Your task to perform on an android device: Play the latest video from the Washington Post Image 0: 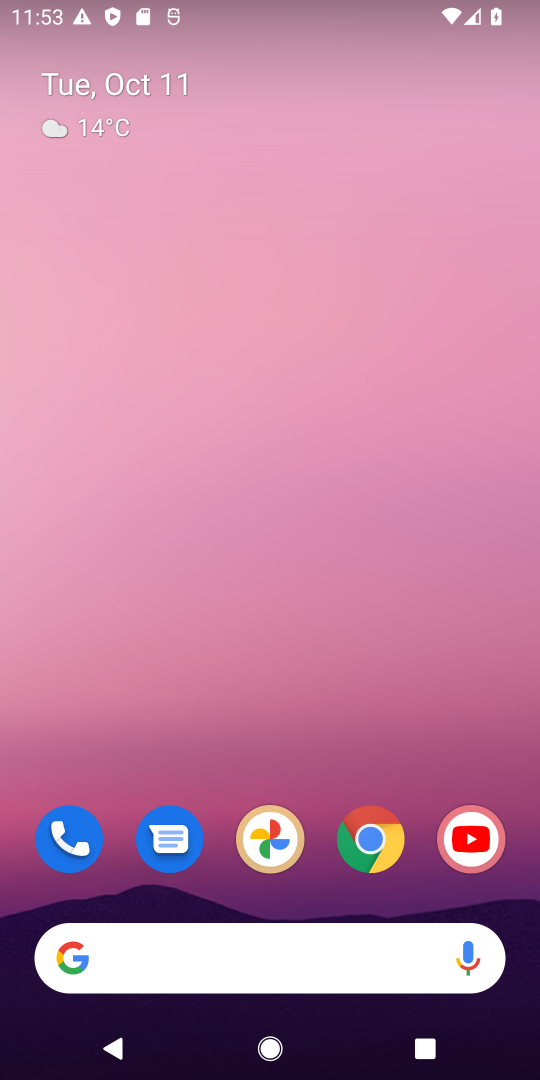
Step 0: drag from (338, 777) to (204, 0)
Your task to perform on an android device: Play the latest video from the Washington Post Image 1: 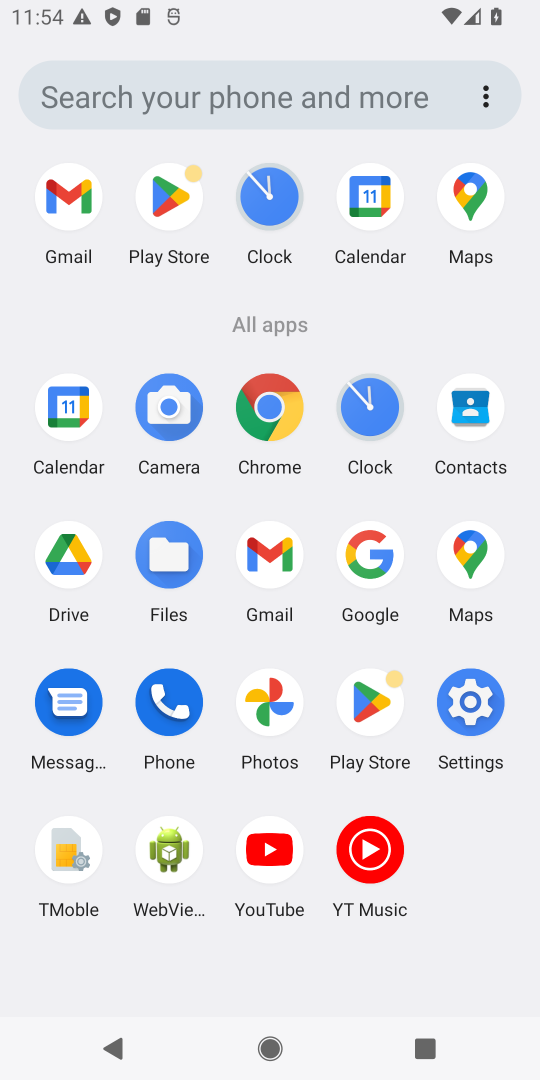
Step 1: click (280, 835)
Your task to perform on an android device: Play the latest video from the Washington Post Image 2: 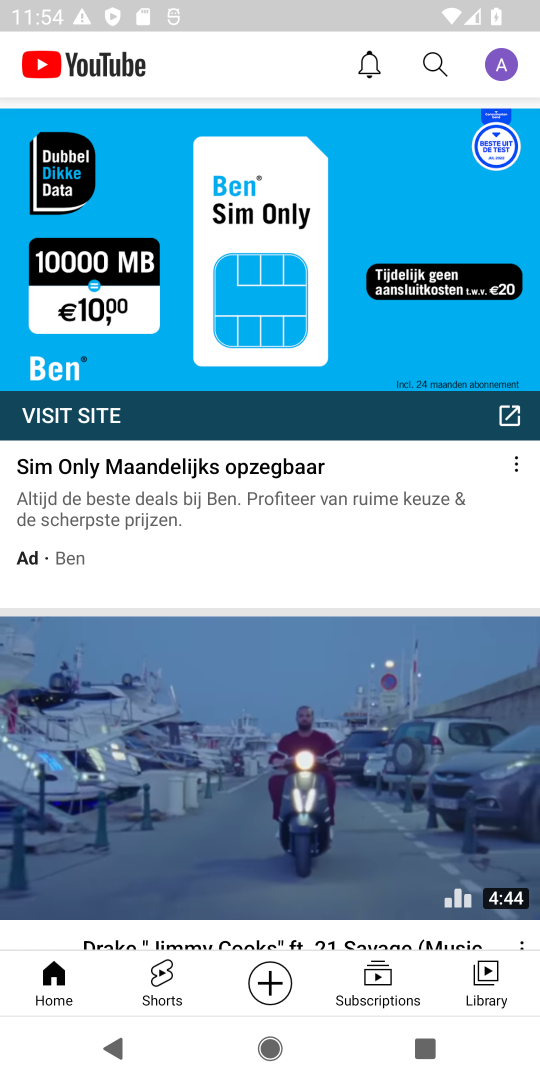
Step 2: click (426, 54)
Your task to perform on an android device: Play the latest video from the Washington Post Image 3: 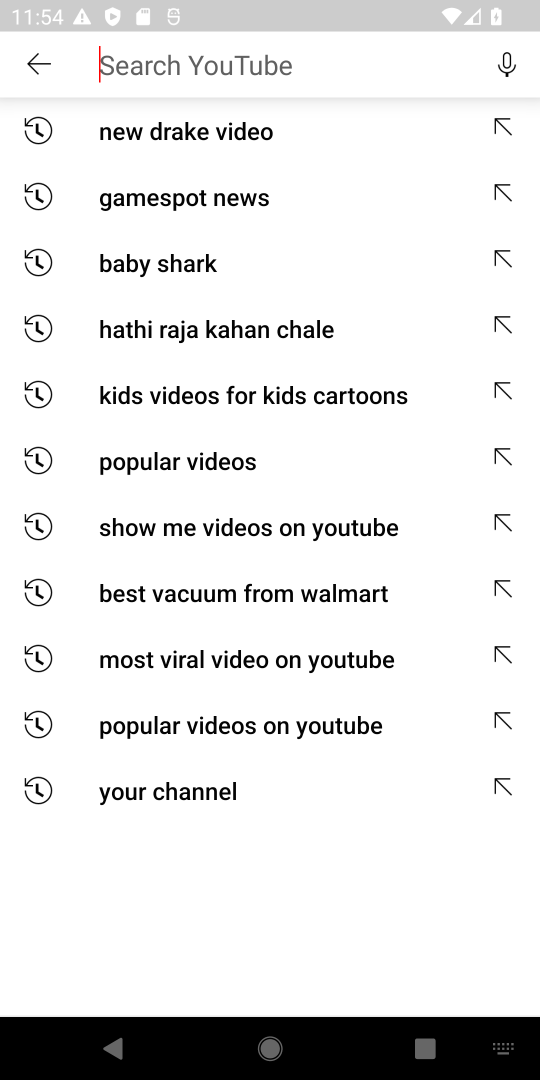
Step 3: type "Washington Post"
Your task to perform on an android device: Play the latest video from the Washington Post Image 4: 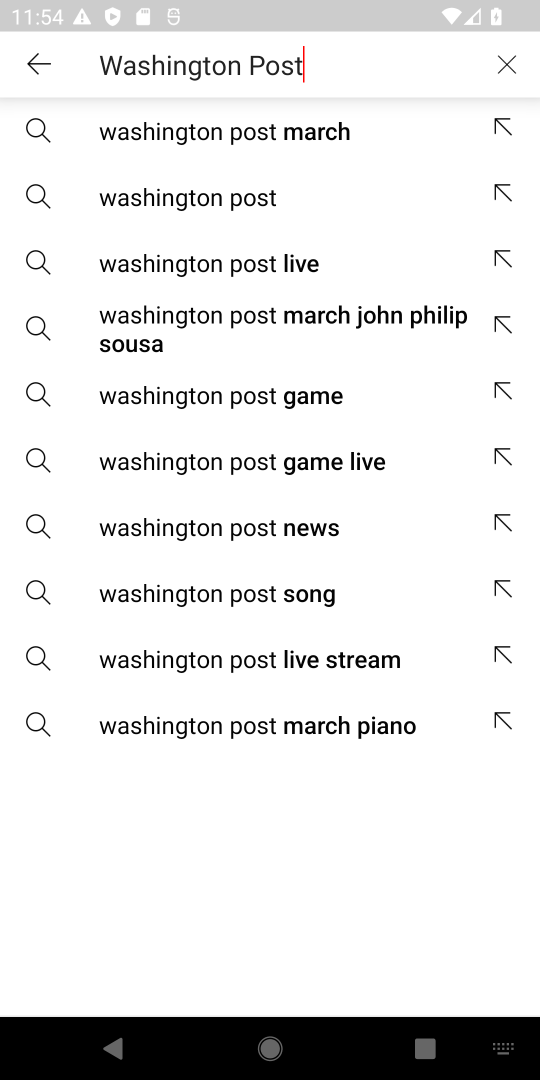
Step 4: click (257, 187)
Your task to perform on an android device: Play the latest video from the Washington Post Image 5: 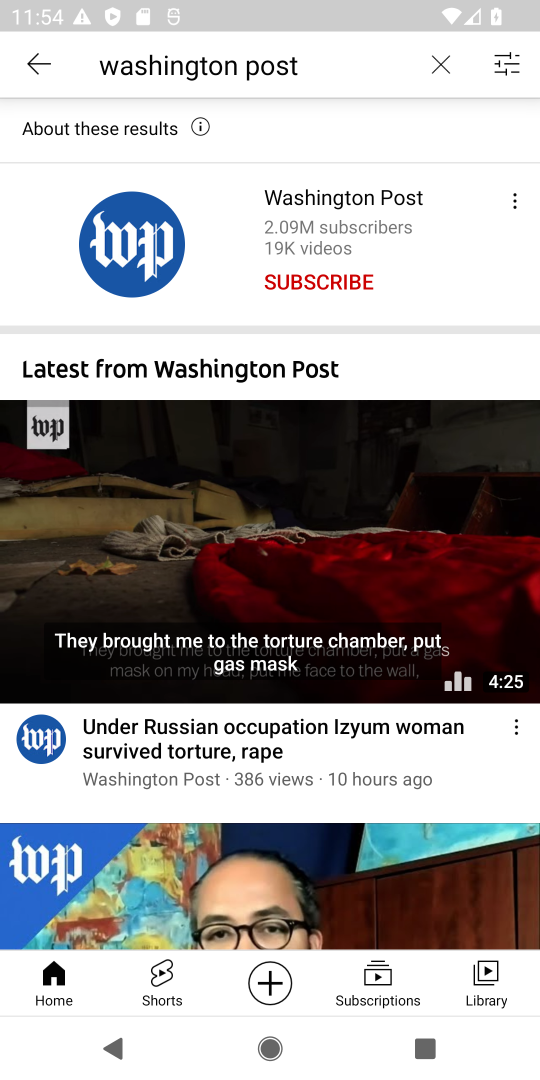
Step 5: click (309, 205)
Your task to perform on an android device: Play the latest video from the Washington Post Image 6: 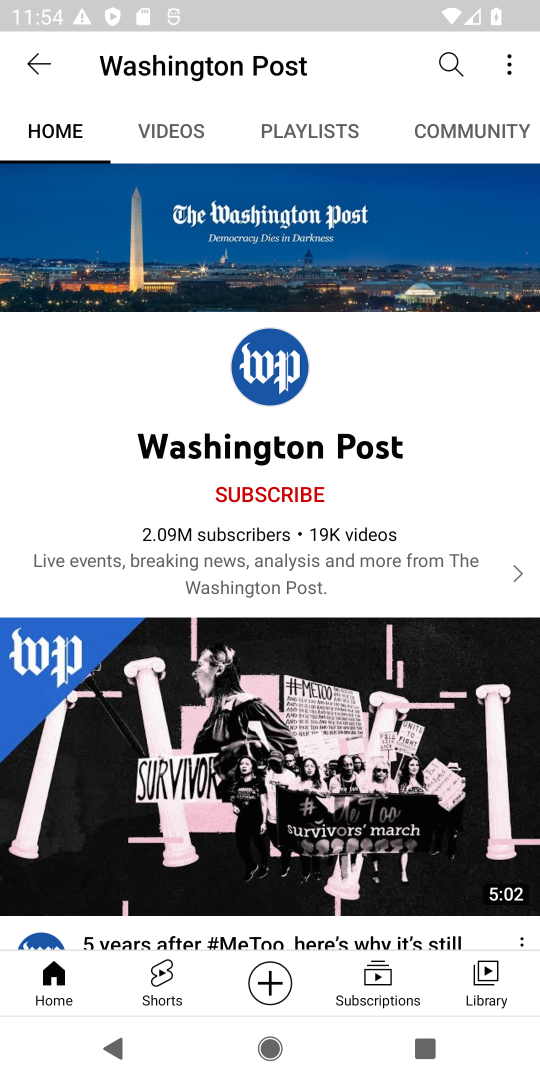
Step 6: click (190, 138)
Your task to perform on an android device: Play the latest video from the Washington Post Image 7: 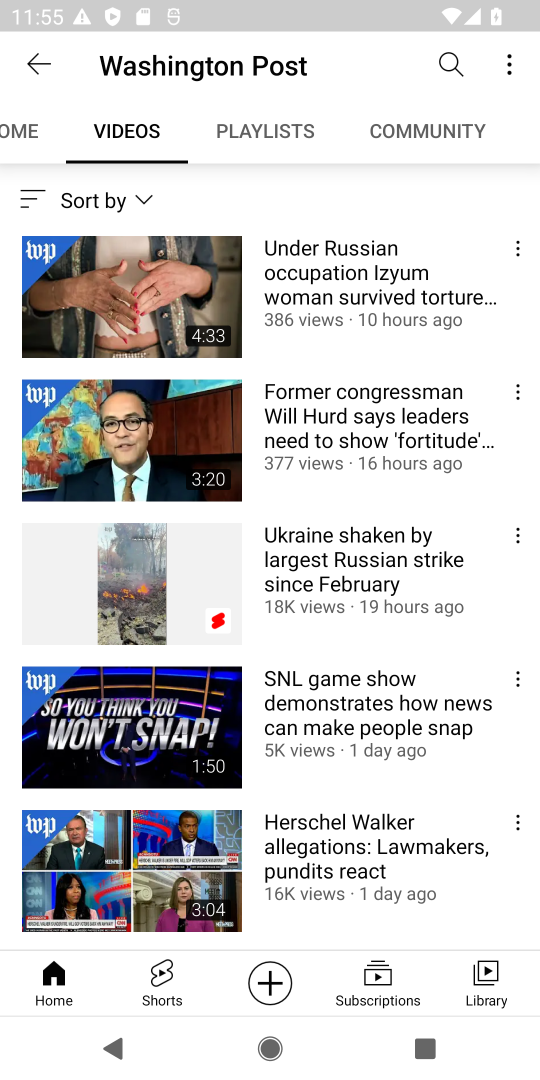
Step 7: click (390, 270)
Your task to perform on an android device: Play the latest video from the Washington Post Image 8: 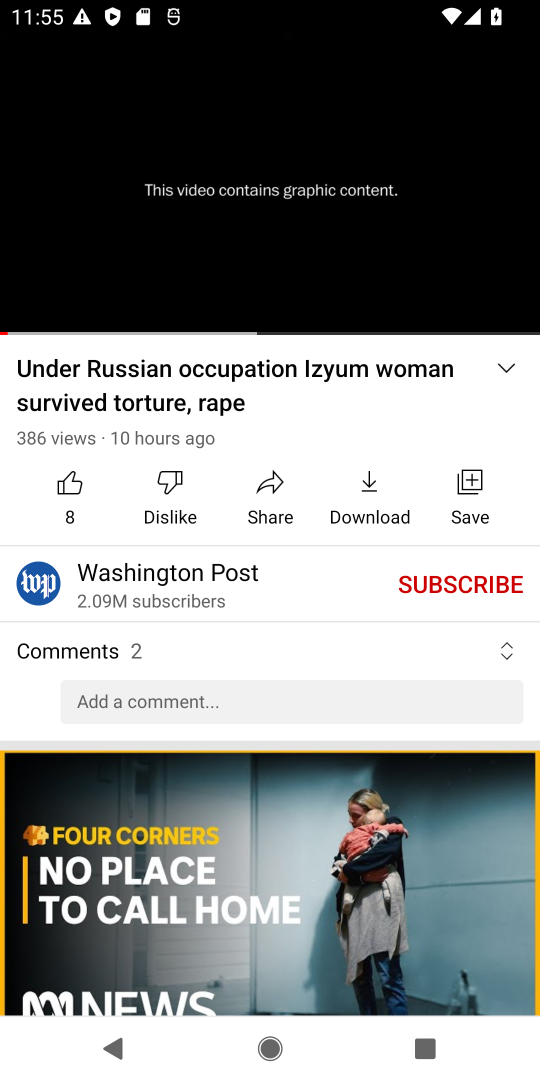
Step 8: task complete